Your task to perform on an android device: Go to settings Image 0: 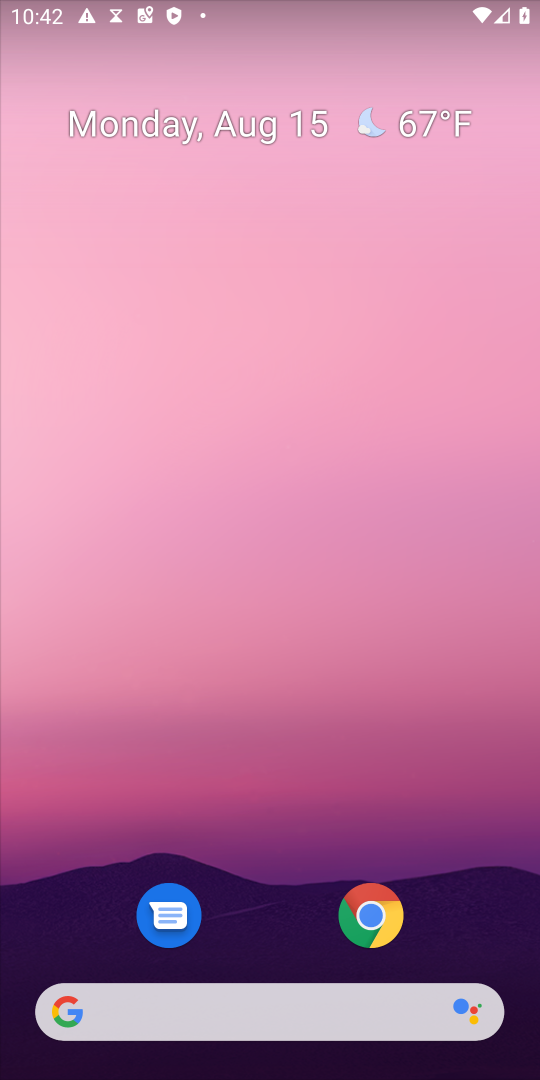
Step 0: drag from (292, 893) to (347, 252)
Your task to perform on an android device: Go to settings Image 1: 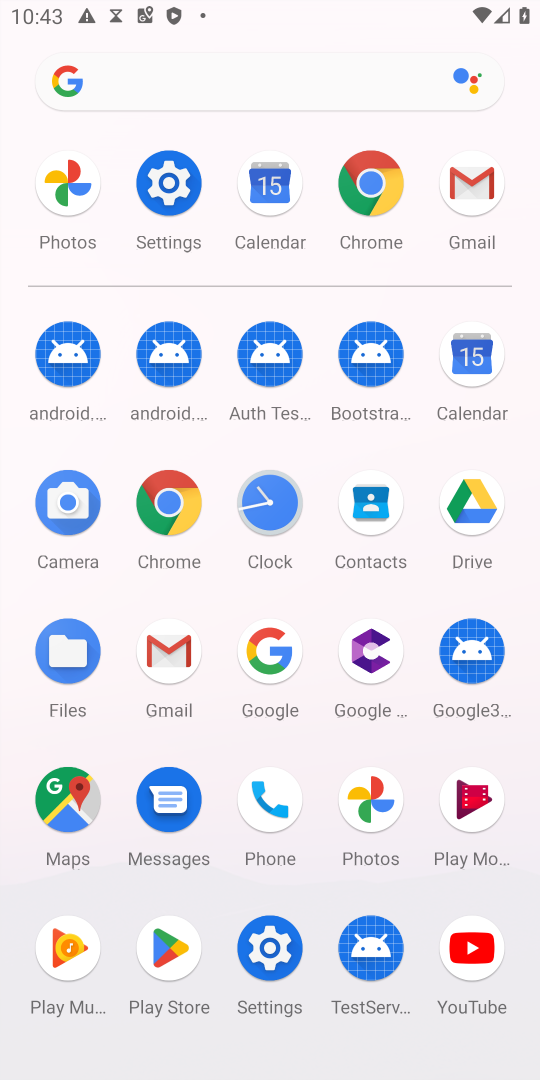
Step 1: click (160, 186)
Your task to perform on an android device: Go to settings Image 2: 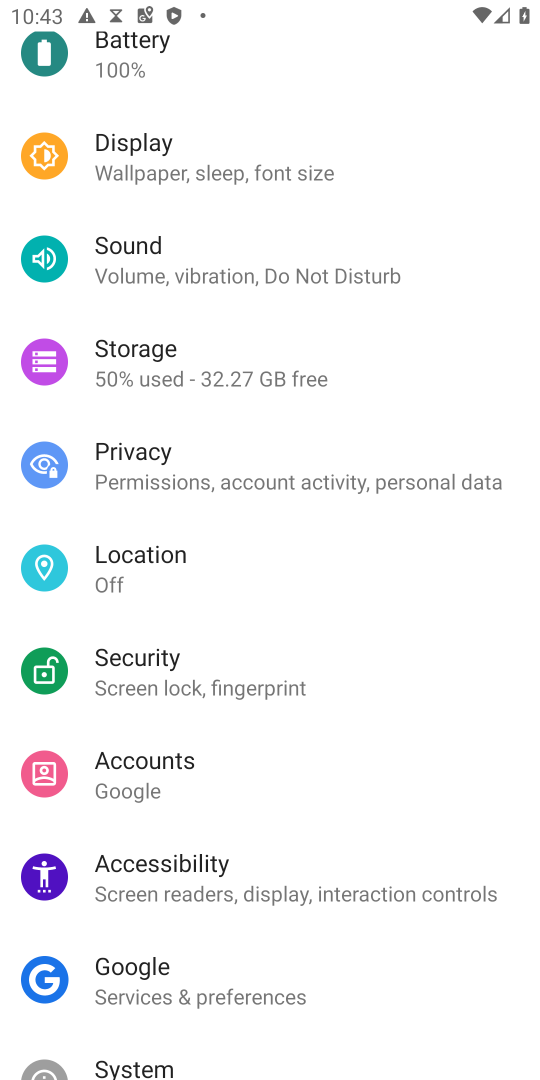
Step 2: task complete